Your task to perform on an android device: Turn on the flashlight Image 0: 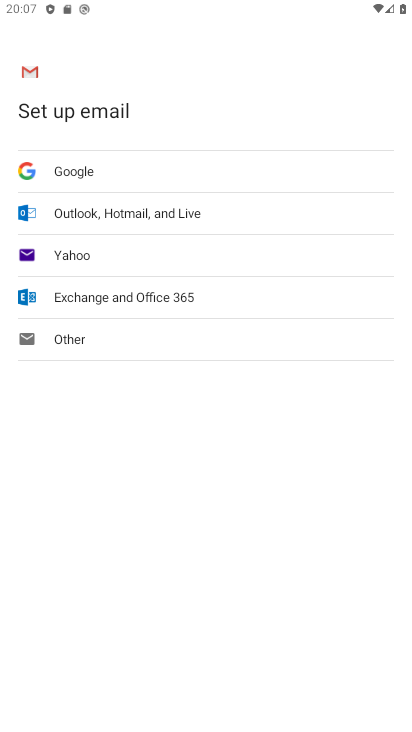
Step 0: press home button
Your task to perform on an android device: Turn on the flashlight Image 1: 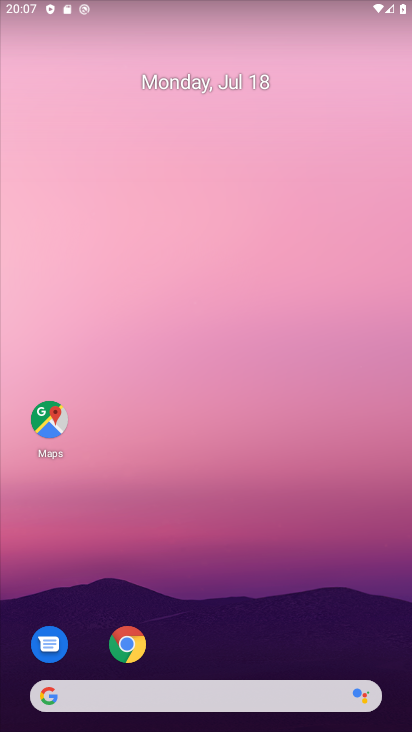
Step 1: drag from (191, 705) to (257, 184)
Your task to perform on an android device: Turn on the flashlight Image 2: 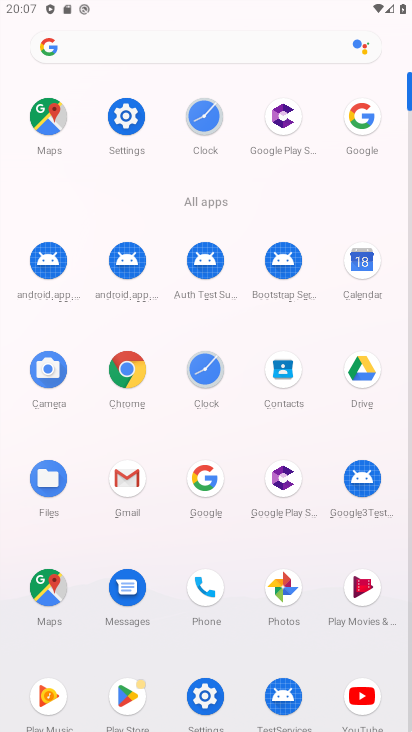
Step 2: click (127, 116)
Your task to perform on an android device: Turn on the flashlight Image 3: 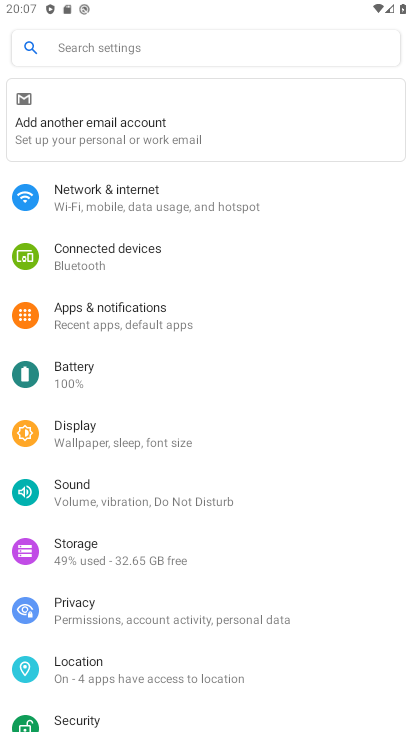
Step 3: click (141, 438)
Your task to perform on an android device: Turn on the flashlight Image 4: 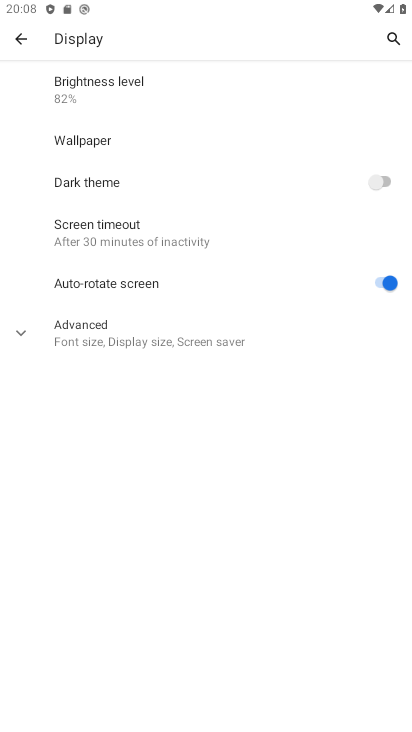
Step 4: click (388, 36)
Your task to perform on an android device: Turn on the flashlight Image 5: 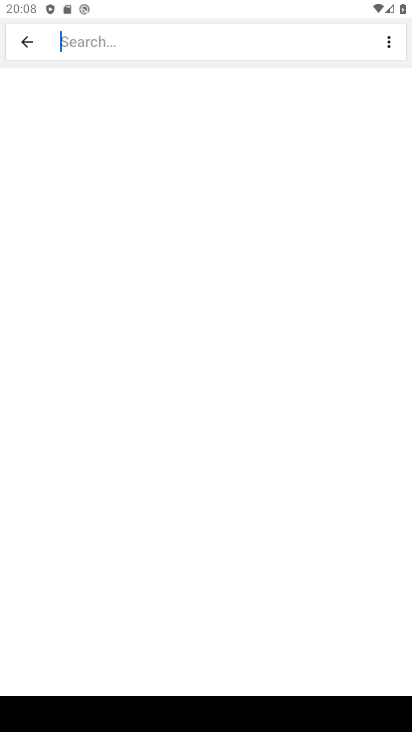
Step 5: type "flashlight"
Your task to perform on an android device: Turn on the flashlight Image 6: 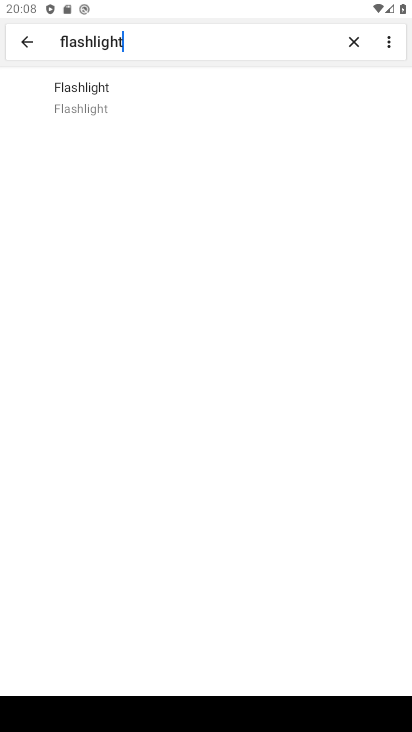
Step 6: click (95, 91)
Your task to perform on an android device: Turn on the flashlight Image 7: 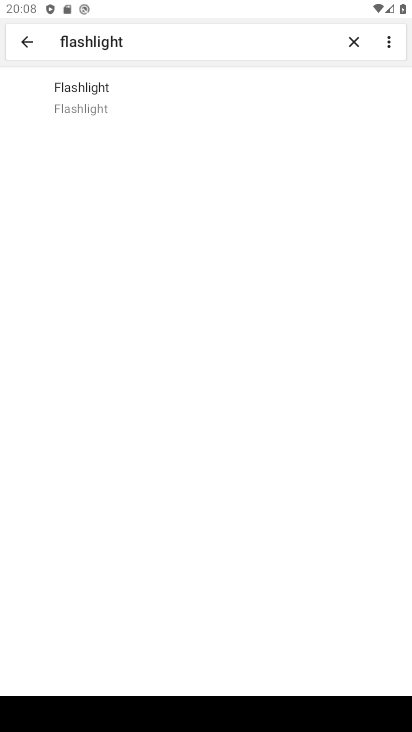
Step 7: click (95, 91)
Your task to perform on an android device: Turn on the flashlight Image 8: 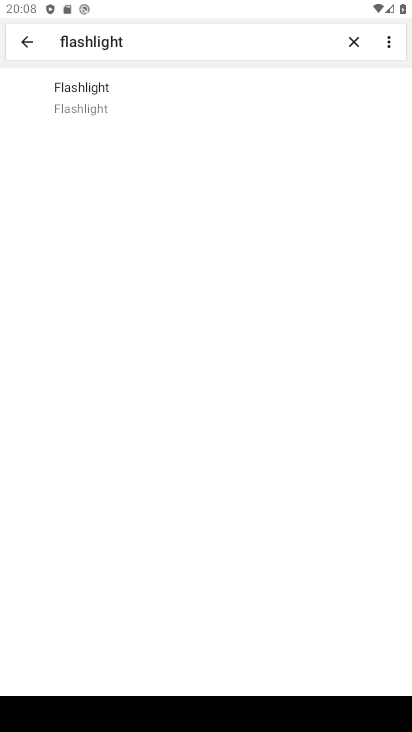
Step 8: task complete